Your task to perform on an android device: See recent photos Image 0: 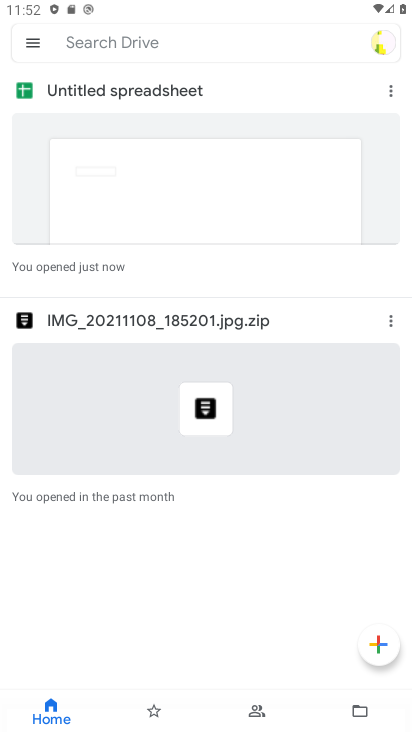
Step 0: press home button
Your task to perform on an android device: See recent photos Image 1: 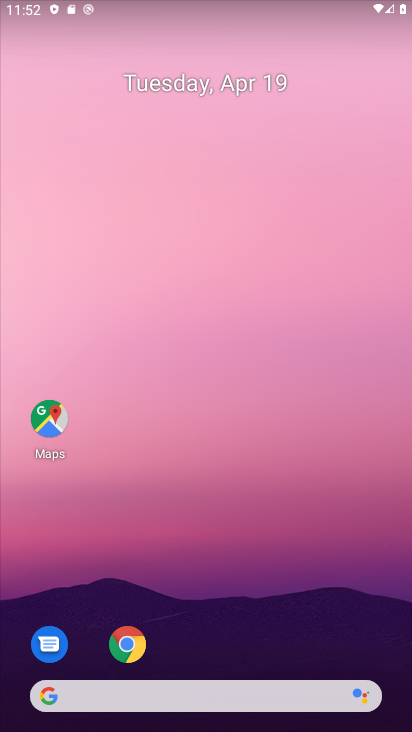
Step 1: drag from (233, 600) to (304, 79)
Your task to perform on an android device: See recent photos Image 2: 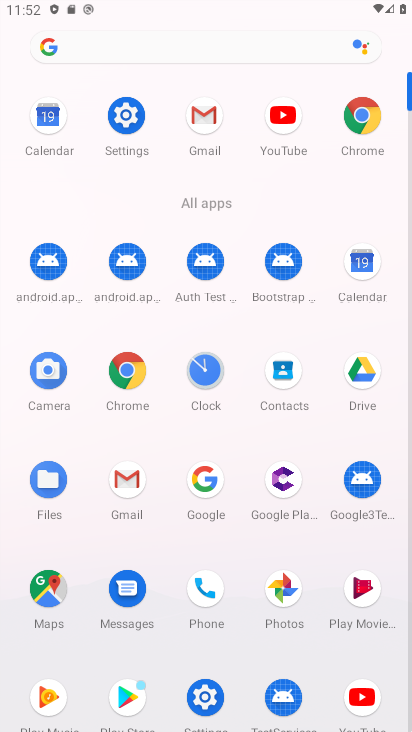
Step 2: click (272, 580)
Your task to perform on an android device: See recent photos Image 3: 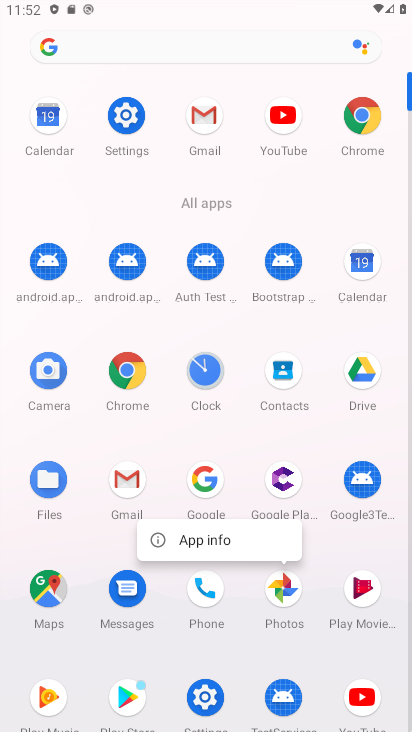
Step 3: click (285, 583)
Your task to perform on an android device: See recent photos Image 4: 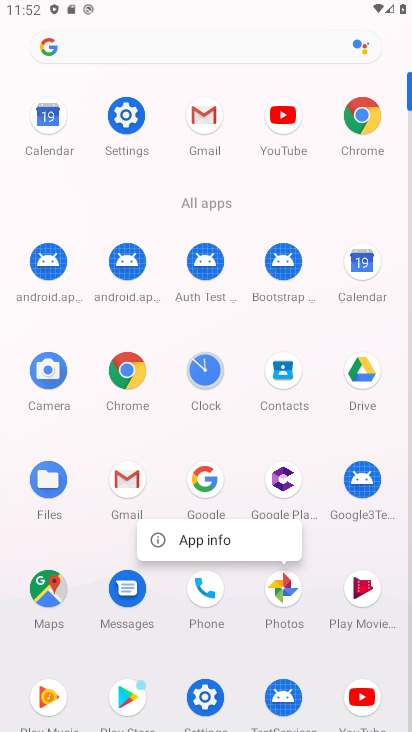
Step 4: click (286, 585)
Your task to perform on an android device: See recent photos Image 5: 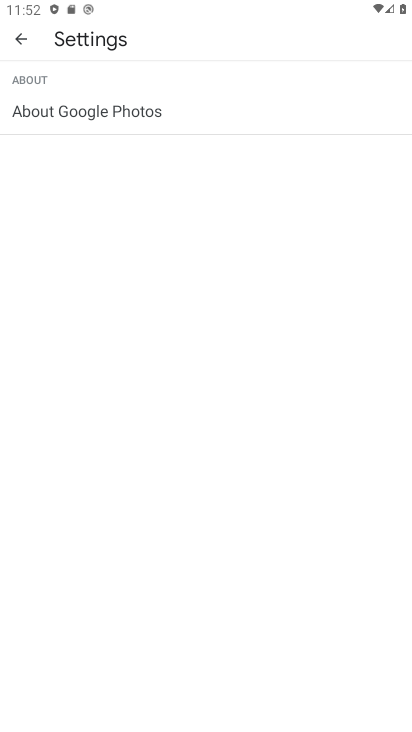
Step 5: click (20, 37)
Your task to perform on an android device: See recent photos Image 6: 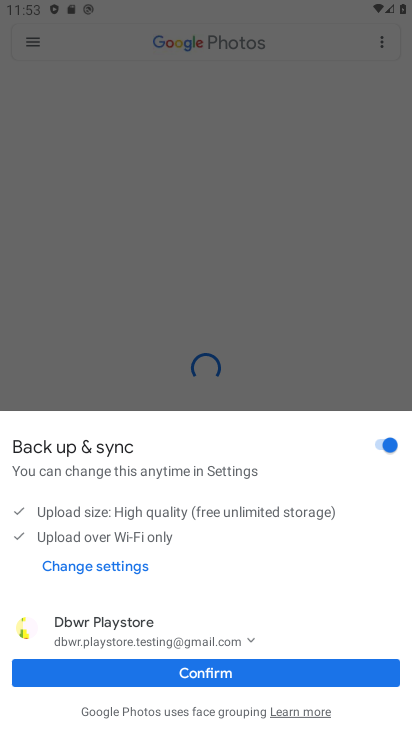
Step 6: click (300, 668)
Your task to perform on an android device: See recent photos Image 7: 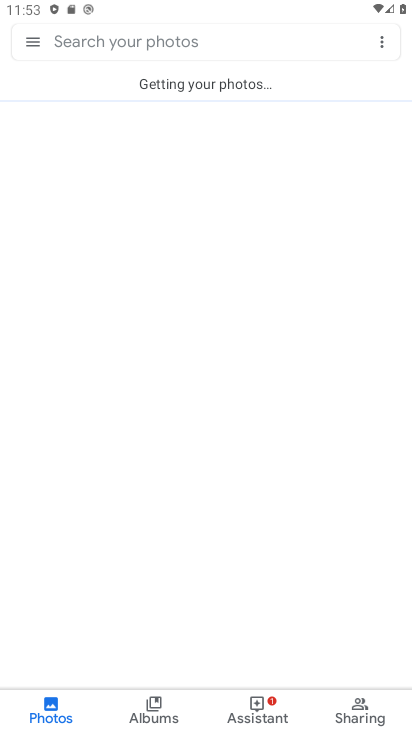
Step 7: click (50, 699)
Your task to perform on an android device: See recent photos Image 8: 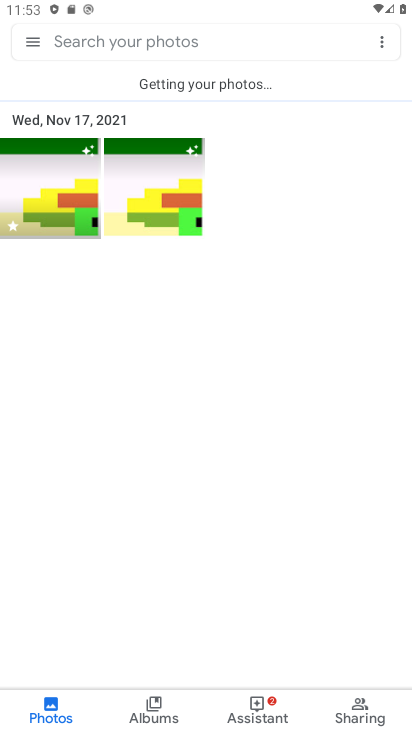
Step 8: task complete